Your task to perform on an android device: Search for vegetarian restaurants on Maps Image 0: 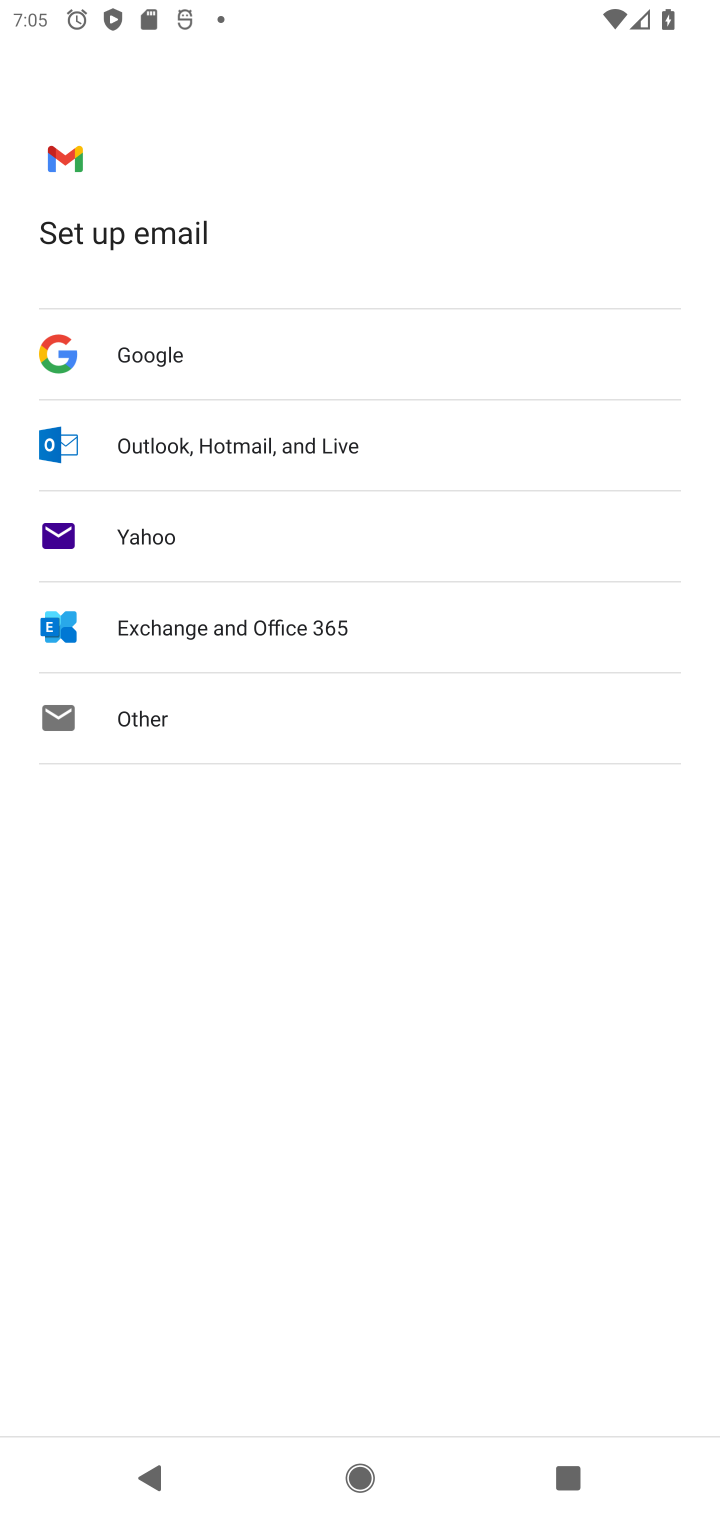
Step 0: press home button
Your task to perform on an android device: Search for vegetarian restaurants on Maps Image 1: 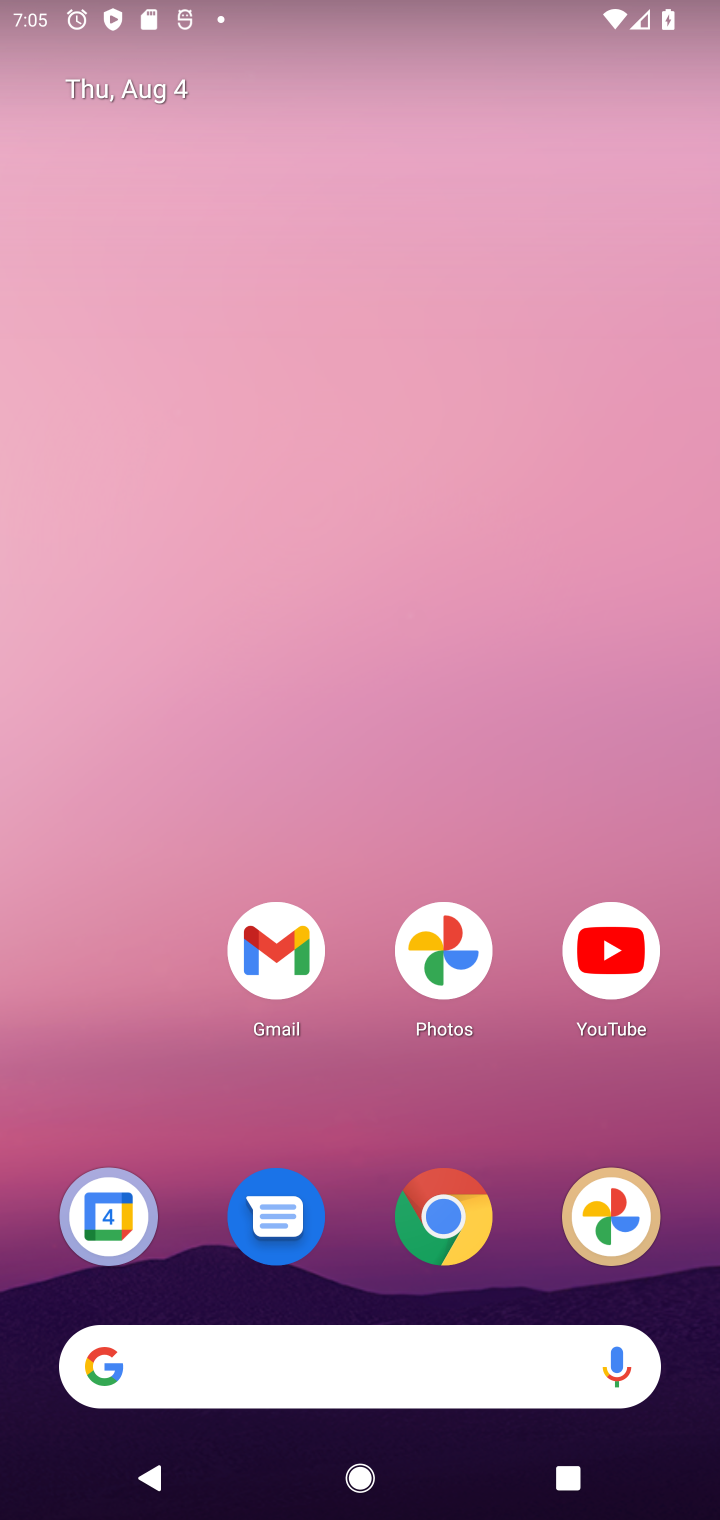
Step 1: drag from (506, 1037) to (573, 210)
Your task to perform on an android device: Search for vegetarian restaurants on Maps Image 2: 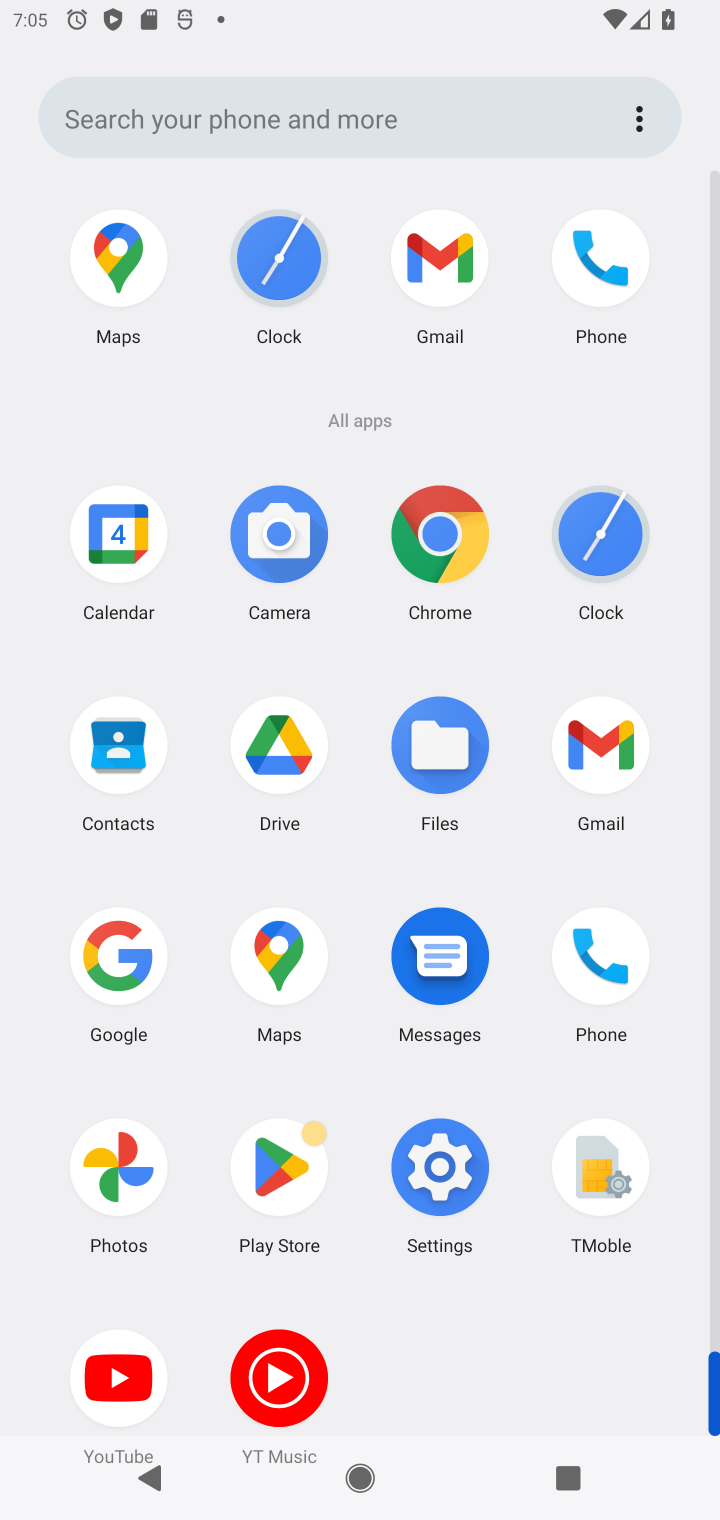
Step 2: click (117, 241)
Your task to perform on an android device: Search for vegetarian restaurants on Maps Image 3: 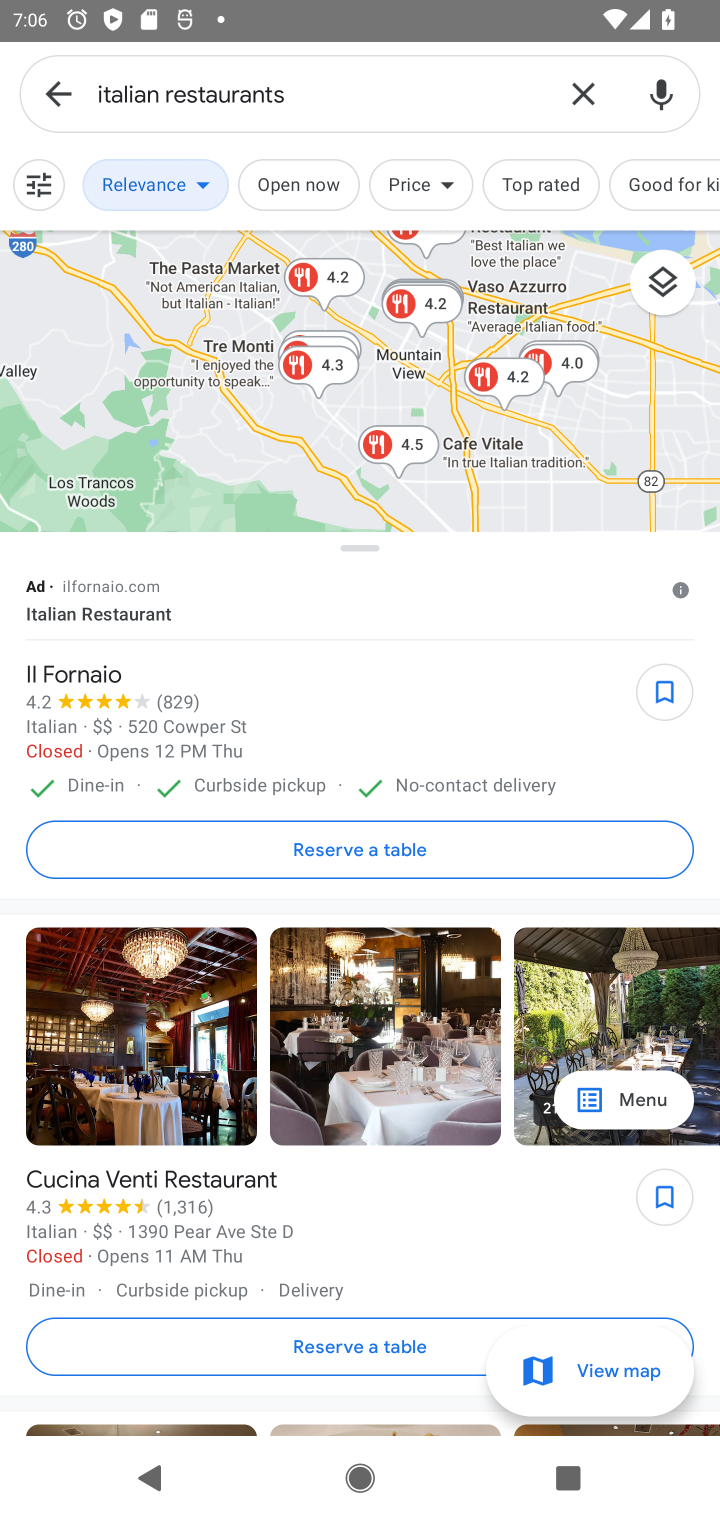
Step 3: click (588, 97)
Your task to perform on an android device: Search for vegetarian restaurants on Maps Image 4: 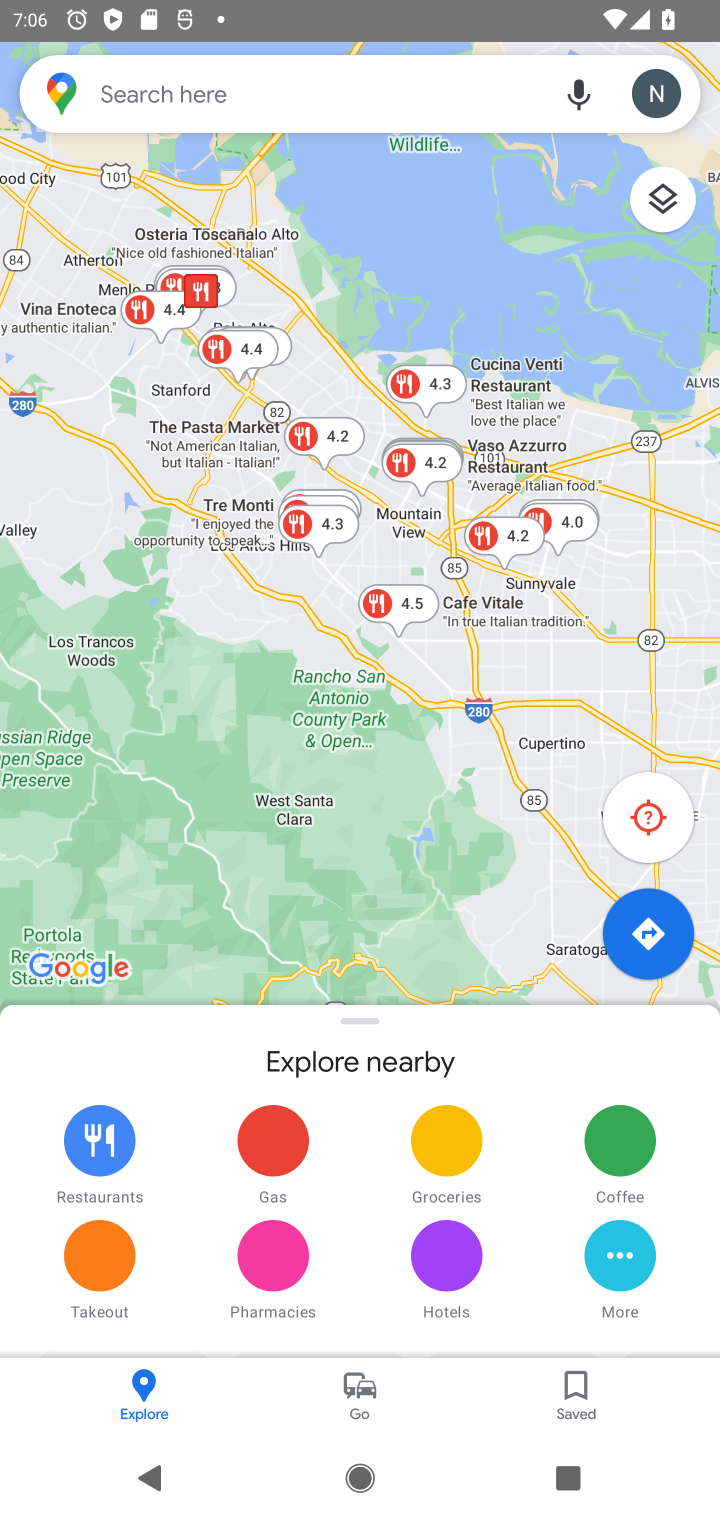
Step 4: click (430, 96)
Your task to perform on an android device: Search for vegetarian restaurants on Maps Image 5: 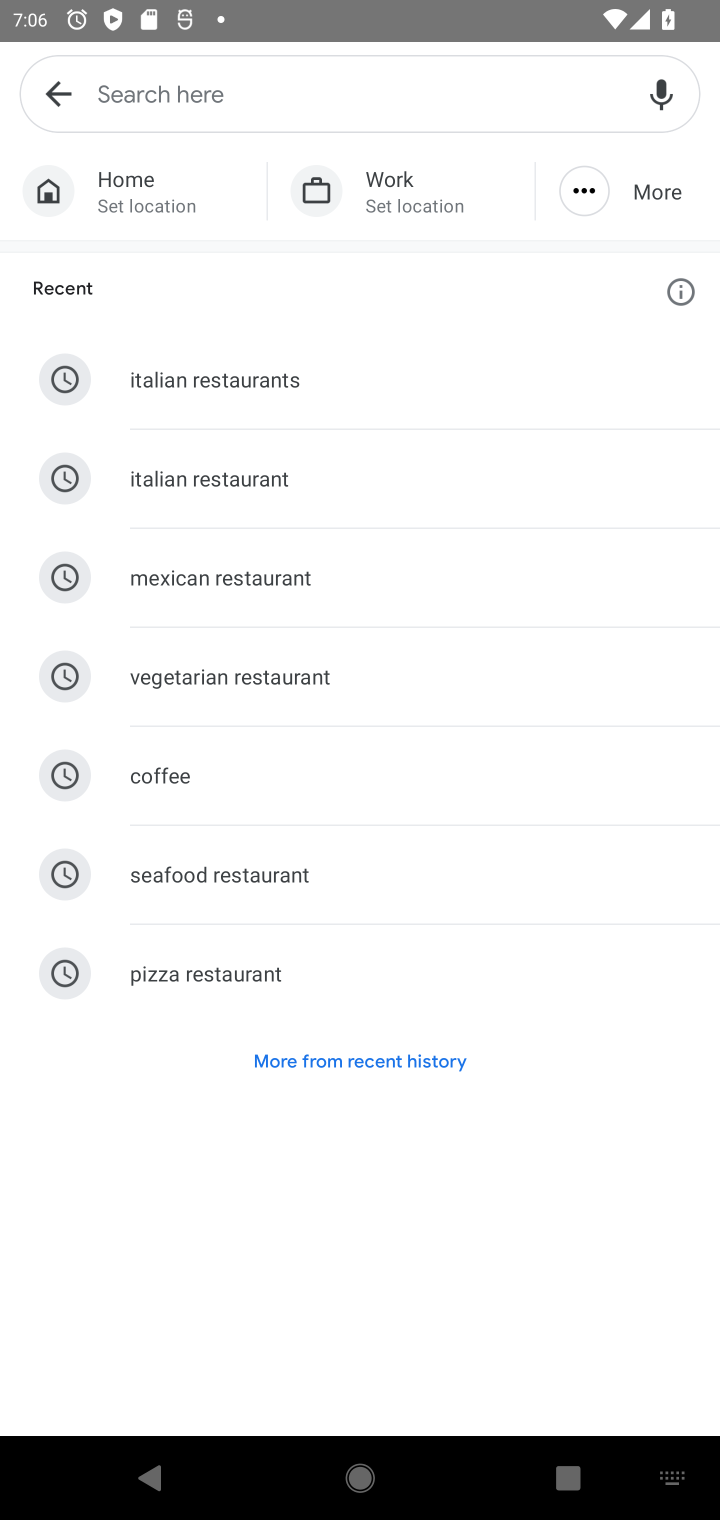
Step 5: type "vegetarian restaurants"
Your task to perform on an android device: Search for vegetarian restaurants on Maps Image 6: 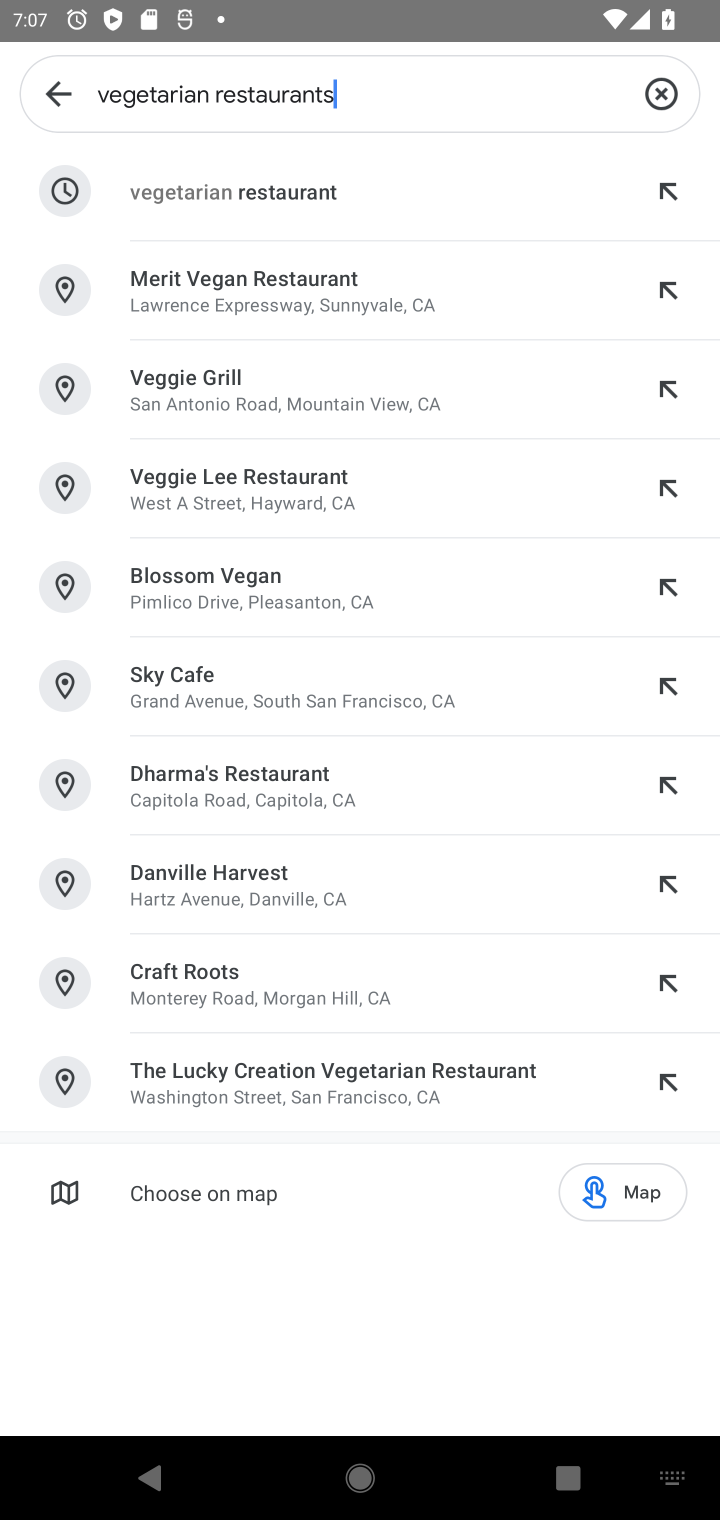
Step 6: click (375, 197)
Your task to perform on an android device: Search for vegetarian restaurants on Maps Image 7: 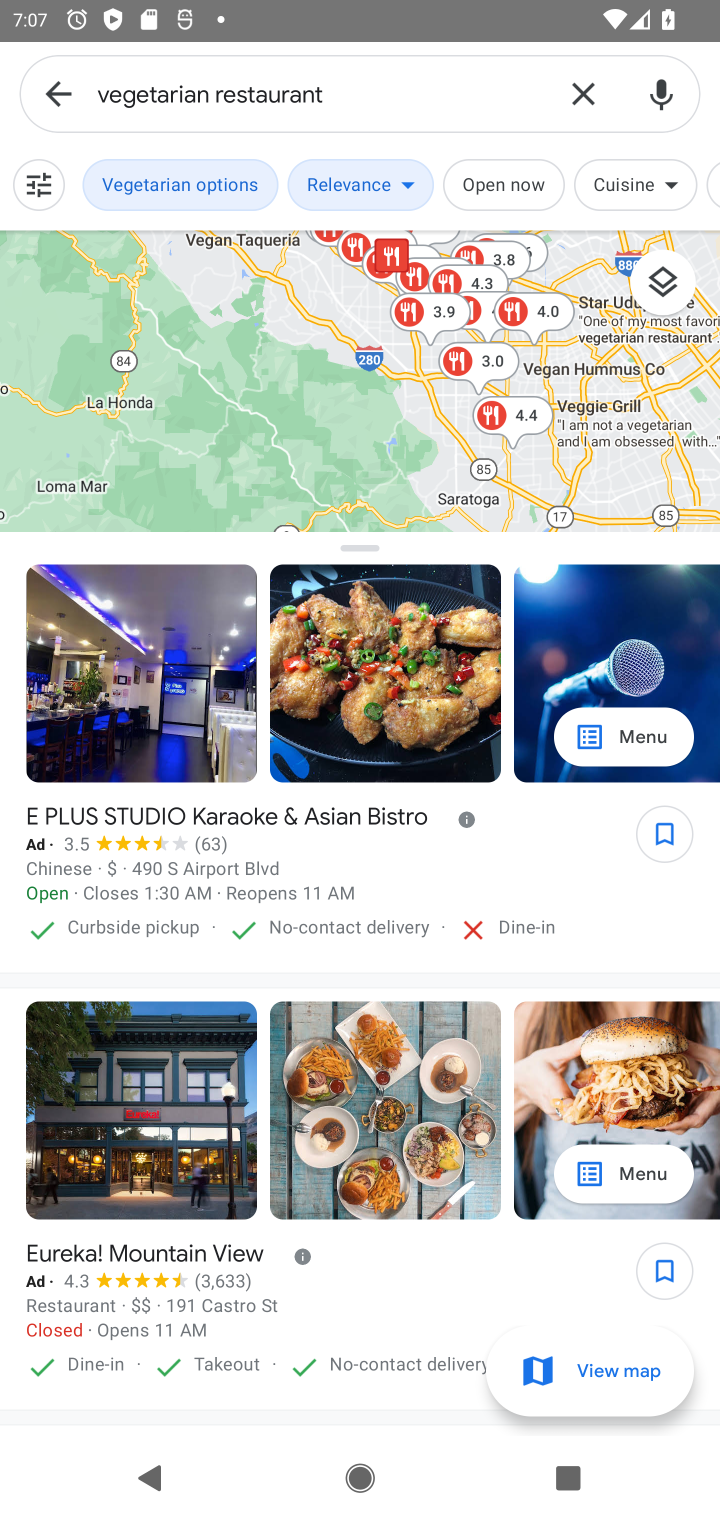
Step 7: task complete